Your task to perform on an android device: visit the assistant section in the google photos Image 0: 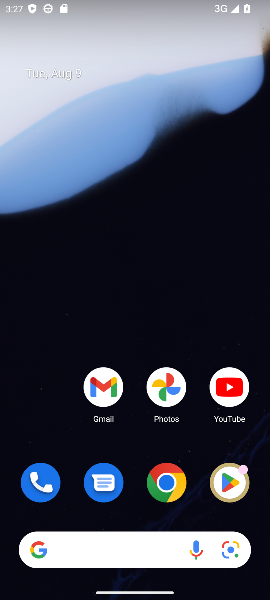
Step 0: click (170, 393)
Your task to perform on an android device: visit the assistant section in the google photos Image 1: 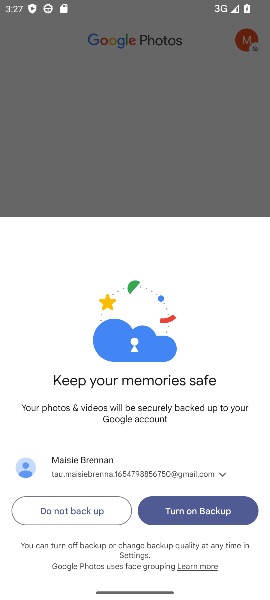
Step 1: click (88, 512)
Your task to perform on an android device: visit the assistant section in the google photos Image 2: 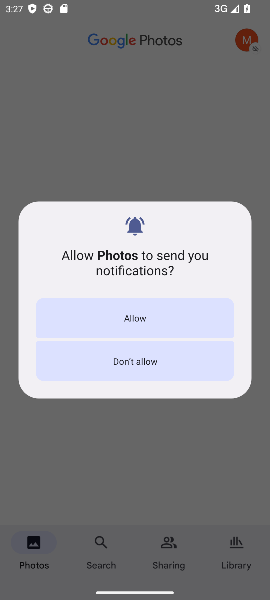
Step 2: click (142, 323)
Your task to perform on an android device: visit the assistant section in the google photos Image 3: 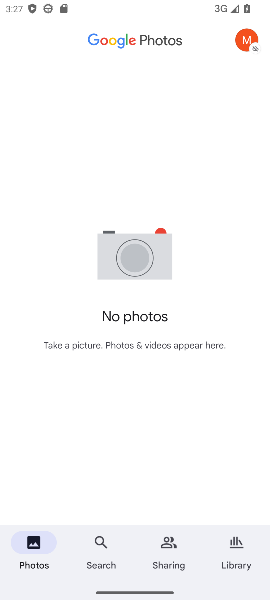
Step 3: click (236, 47)
Your task to perform on an android device: visit the assistant section in the google photos Image 4: 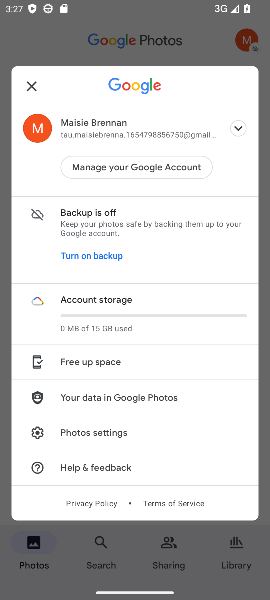
Step 4: click (25, 87)
Your task to perform on an android device: visit the assistant section in the google photos Image 5: 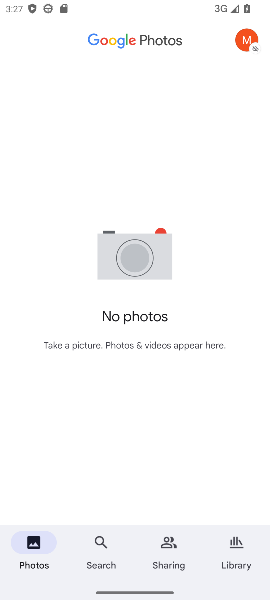
Step 5: click (169, 555)
Your task to perform on an android device: visit the assistant section in the google photos Image 6: 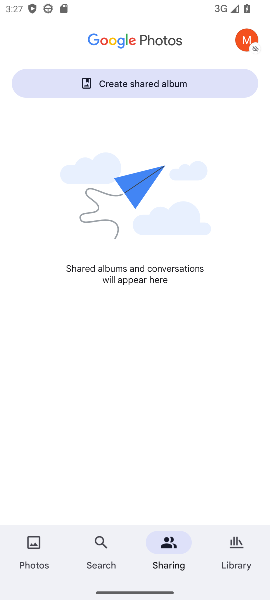
Step 6: click (218, 543)
Your task to perform on an android device: visit the assistant section in the google photos Image 7: 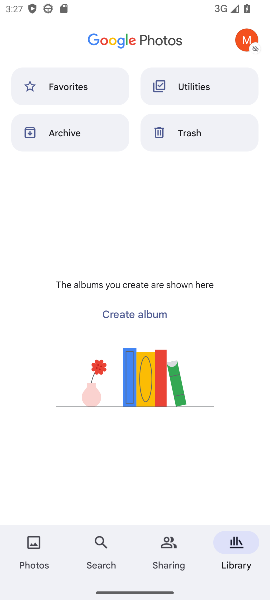
Step 7: task complete